Your task to perform on an android device: turn off notifications in google photos Image 0: 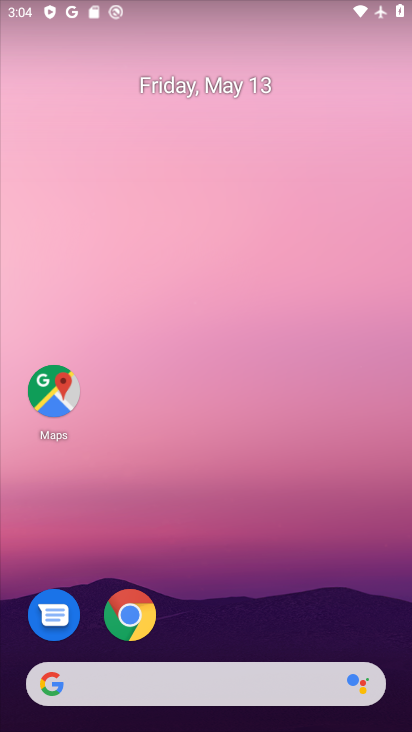
Step 0: drag from (172, 691) to (339, 296)
Your task to perform on an android device: turn off notifications in google photos Image 1: 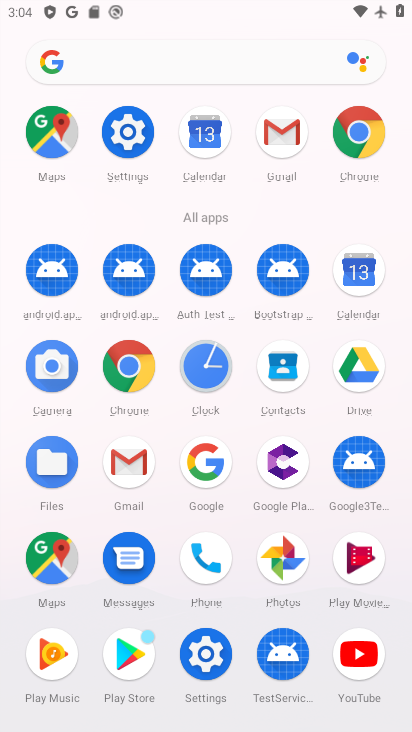
Step 1: click (275, 552)
Your task to perform on an android device: turn off notifications in google photos Image 2: 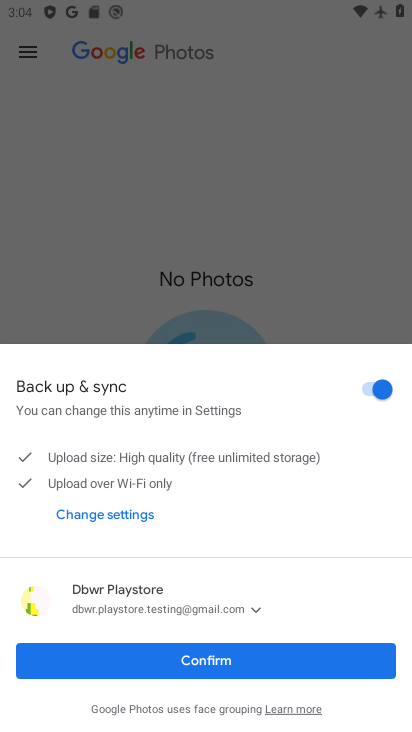
Step 2: click (189, 657)
Your task to perform on an android device: turn off notifications in google photos Image 3: 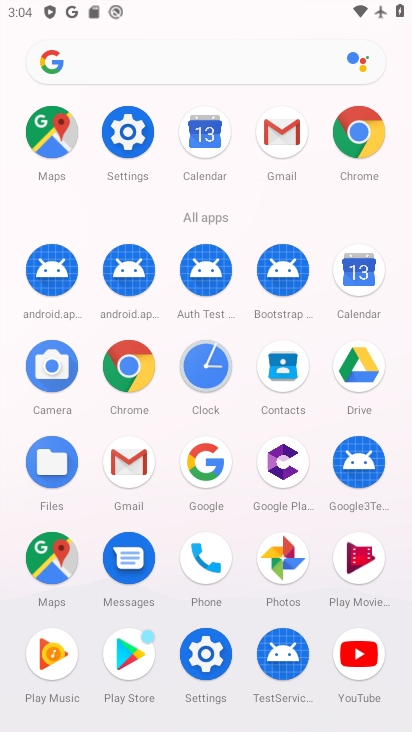
Step 3: click (283, 571)
Your task to perform on an android device: turn off notifications in google photos Image 4: 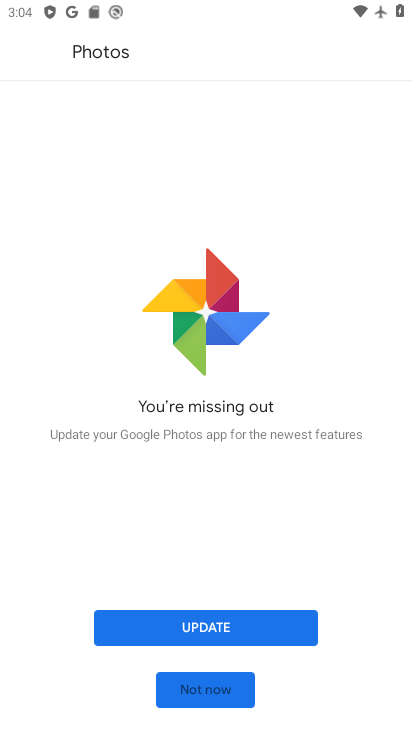
Step 4: click (245, 633)
Your task to perform on an android device: turn off notifications in google photos Image 5: 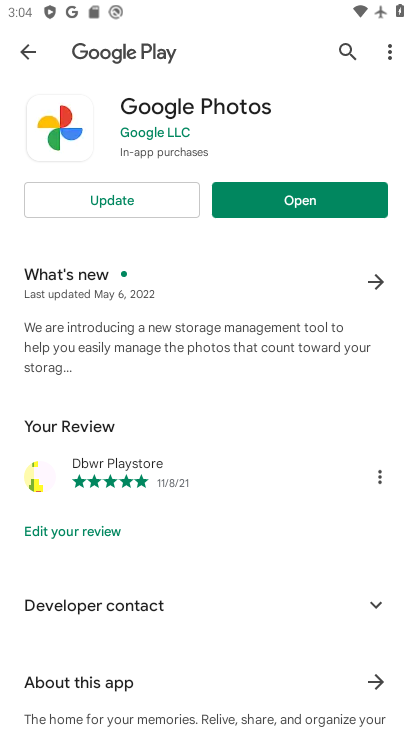
Step 5: click (156, 195)
Your task to perform on an android device: turn off notifications in google photos Image 6: 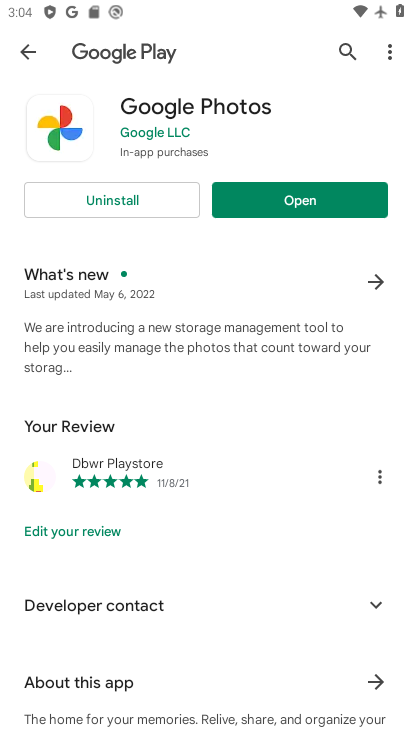
Step 6: click (301, 200)
Your task to perform on an android device: turn off notifications in google photos Image 7: 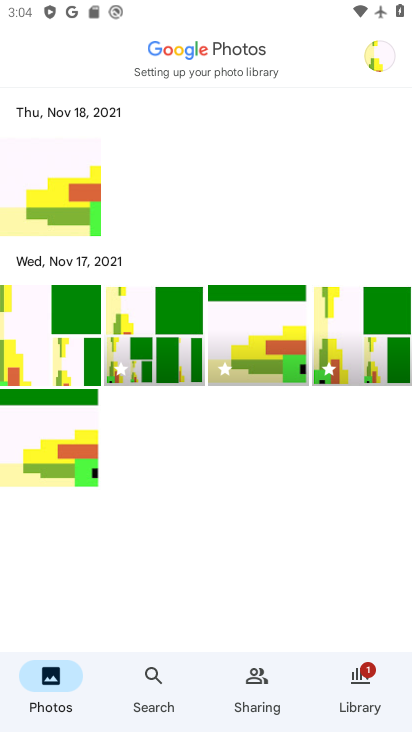
Step 7: click (381, 66)
Your task to perform on an android device: turn off notifications in google photos Image 8: 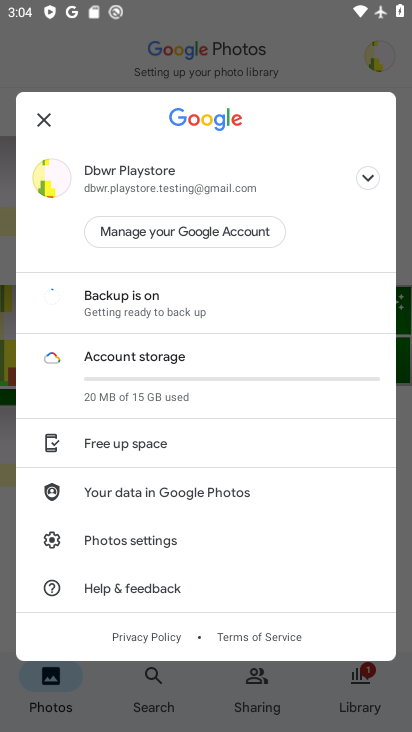
Step 8: click (168, 540)
Your task to perform on an android device: turn off notifications in google photos Image 9: 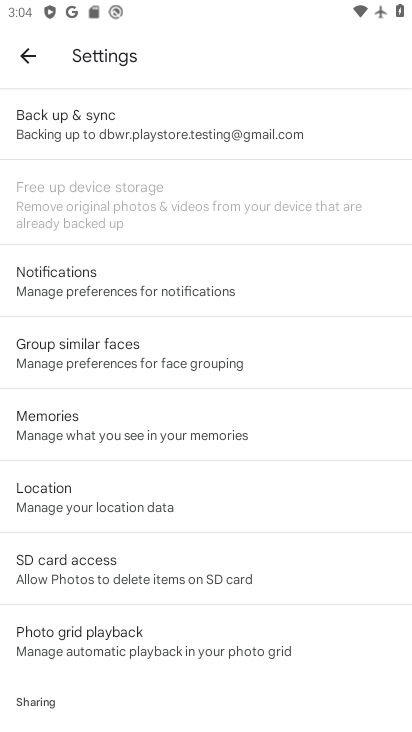
Step 9: click (164, 302)
Your task to perform on an android device: turn off notifications in google photos Image 10: 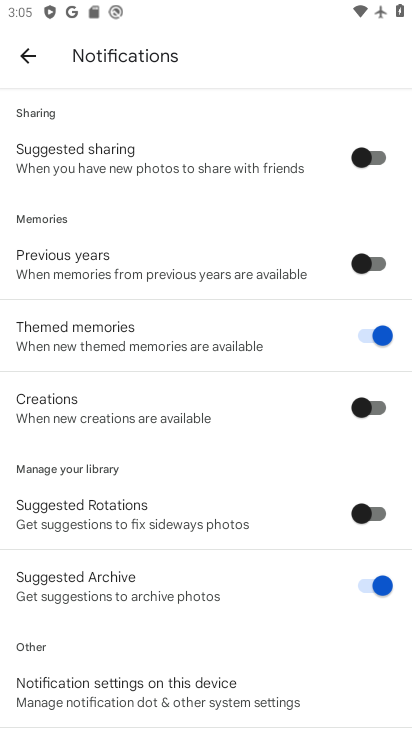
Step 10: click (124, 702)
Your task to perform on an android device: turn off notifications in google photos Image 11: 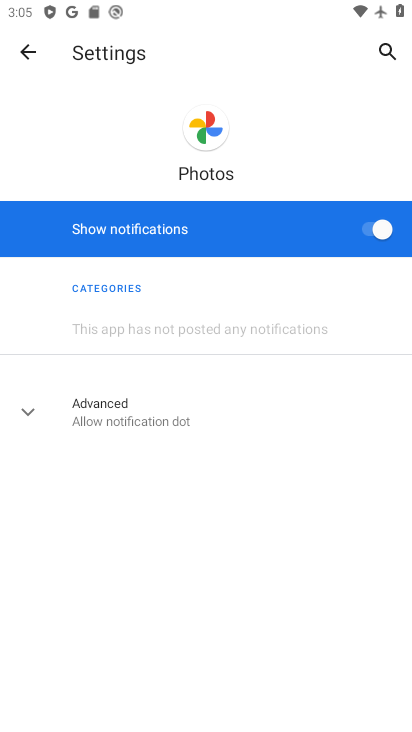
Step 11: click (366, 233)
Your task to perform on an android device: turn off notifications in google photos Image 12: 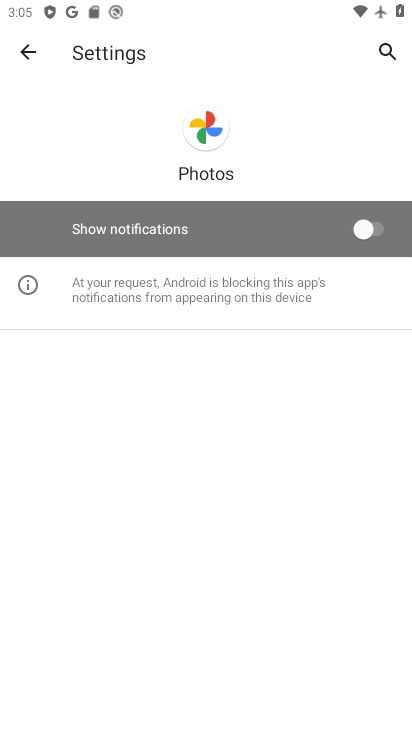
Step 12: task complete